Your task to perform on an android device: add a label to a message in the gmail app Image 0: 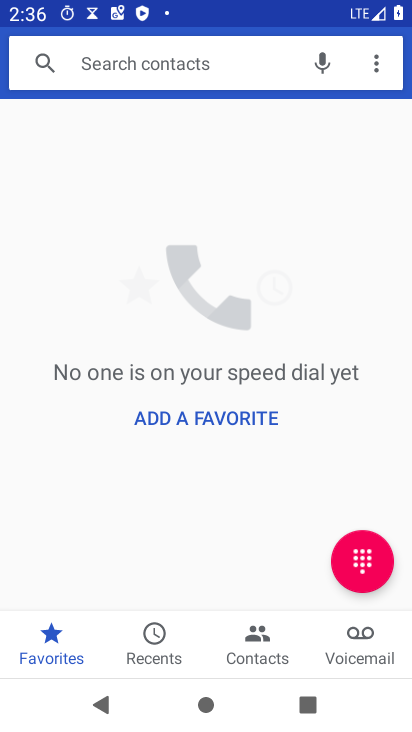
Step 0: press home button
Your task to perform on an android device: add a label to a message in the gmail app Image 1: 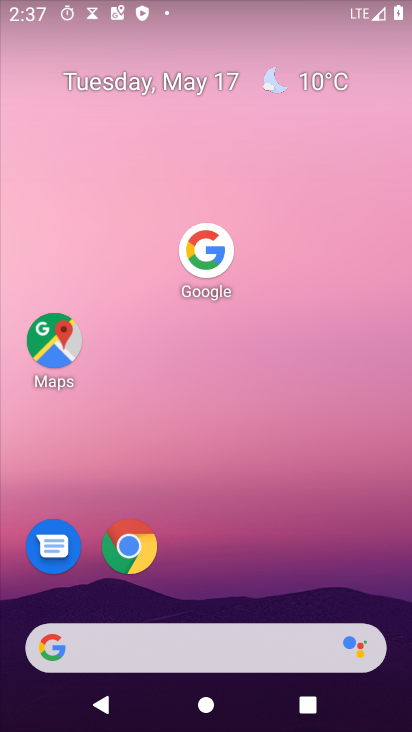
Step 1: drag from (141, 651) to (318, 91)
Your task to perform on an android device: add a label to a message in the gmail app Image 2: 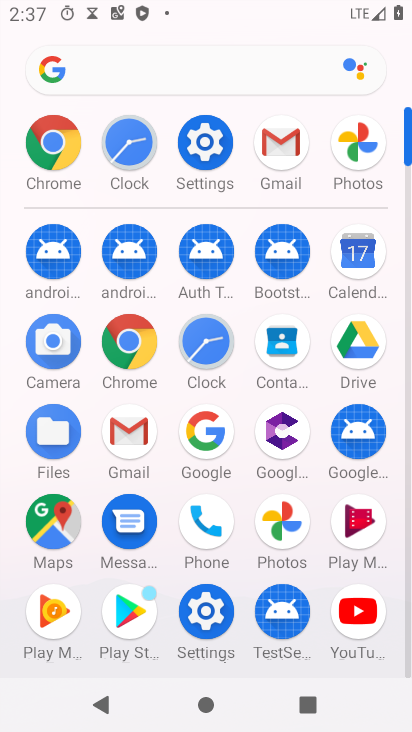
Step 2: click (114, 432)
Your task to perform on an android device: add a label to a message in the gmail app Image 3: 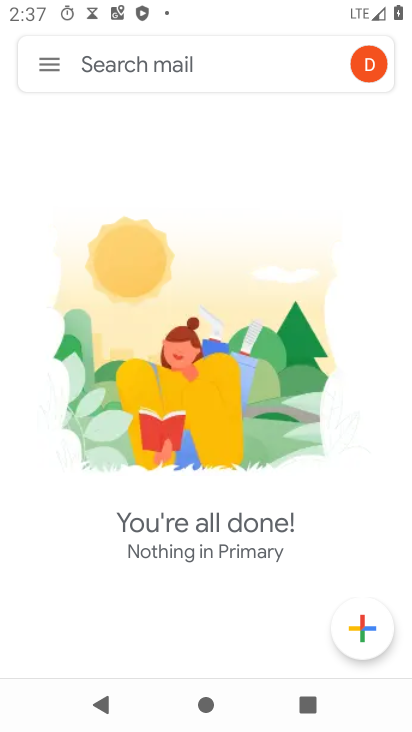
Step 3: task complete